Your task to perform on an android device: Open CNN.com Image 0: 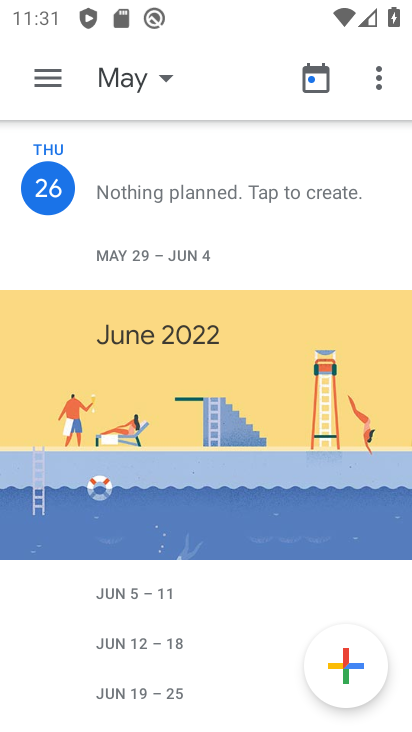
Step 0: press home button
Your task to perform on an android device: Open CNN.com Image 1: 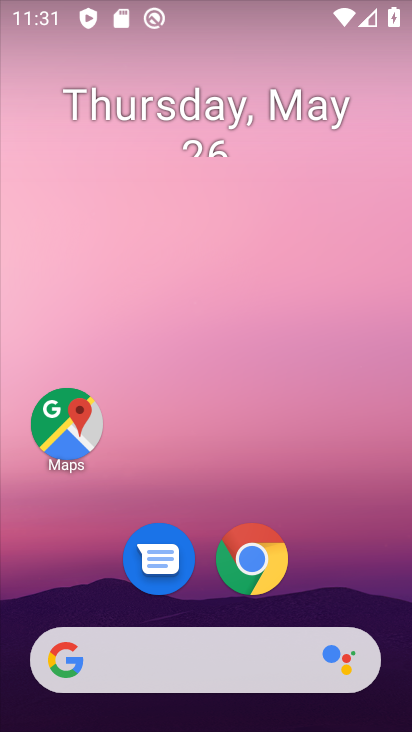
Step 1: click (252, 550)
Your task to perform on an android device: Open CNN.com Image 2: 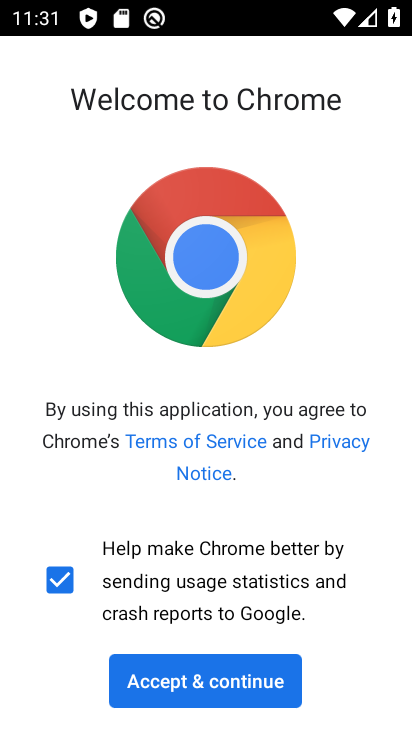
Step 2: click (280, 684)
Your task to perform on an android device: Open CNN.com Image 3: 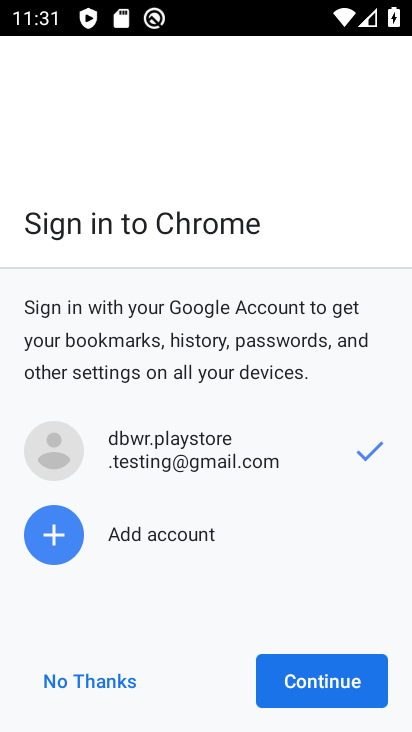
Step 3: click (280, 684)
Your task to perform on an android device: Open CNN.com Image 4: 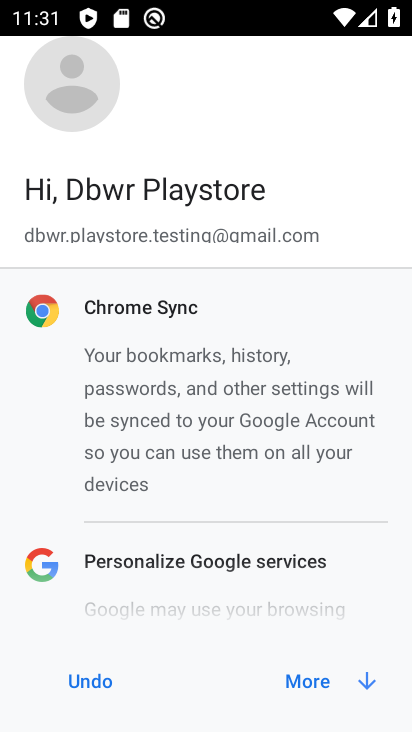
Step 4: click (280, 684)
Your task to perform on an android device: Open CNN.com Image 5: 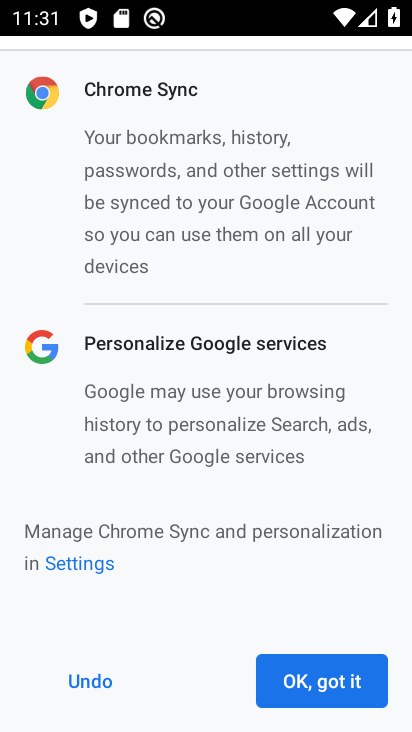
Step 5: click (290, 685)
Your task to perform on an android device: Open CNN.com Image 6: 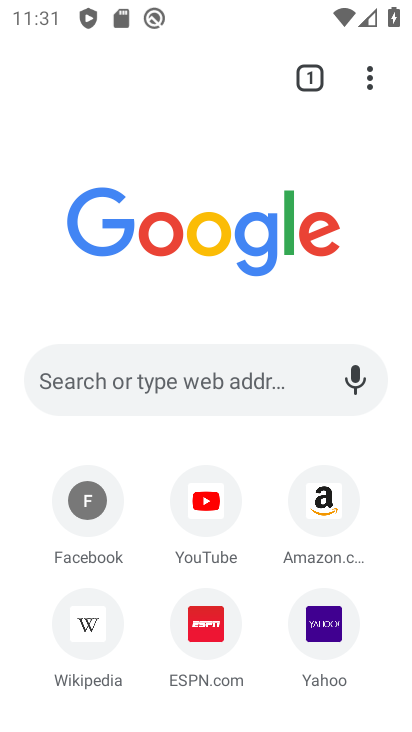
Step 6: click (134, 389)
Your task to perform on an android device: Open CNN.com Image 7: 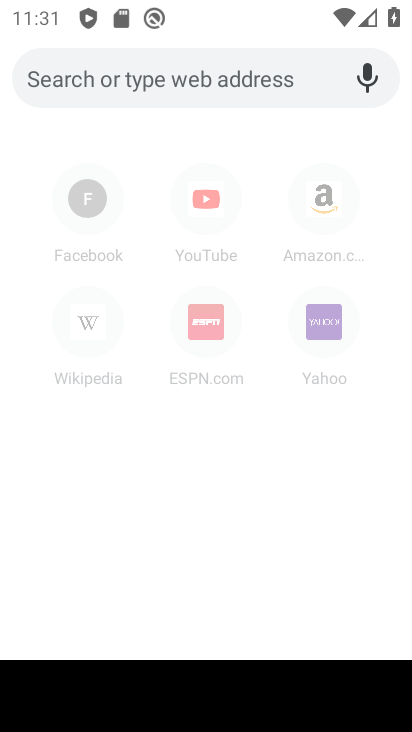
Step 7: type "cnn.com"
Your task to perform on an android device: Open CNN.com Image 8: 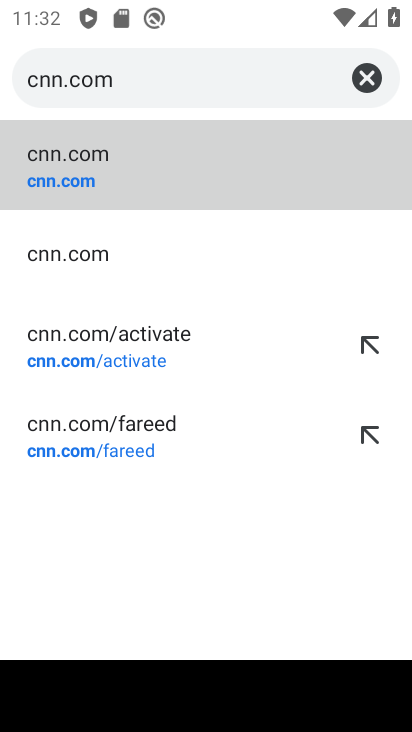
Step 8: click (44, 165)
Your task to perform on an android device: Open CNN.com Image 9: 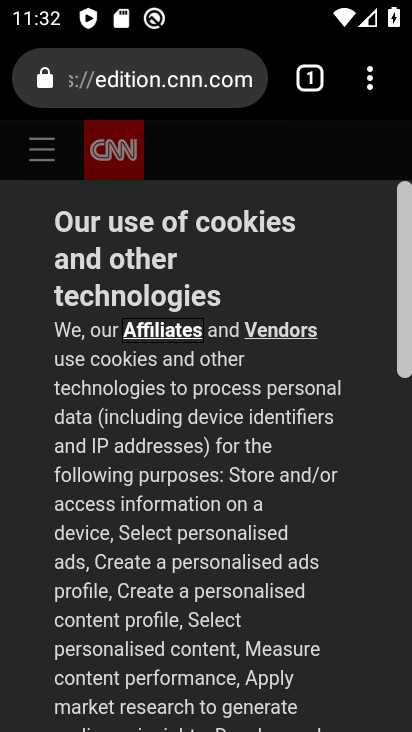
Step 9: task complete